Your task to perform on an android device: toggle pop-ups in chrome Image 0: 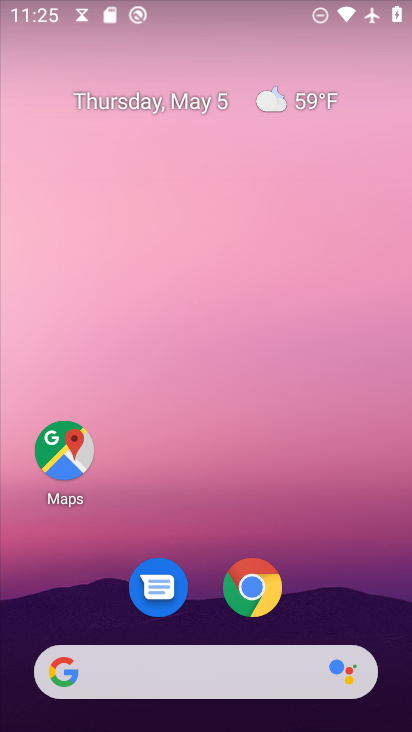
Step 0: drag from (340, 617) to (272, 14)
Your task to perform on an android device: toggle pop-ups in chrome Image 1: 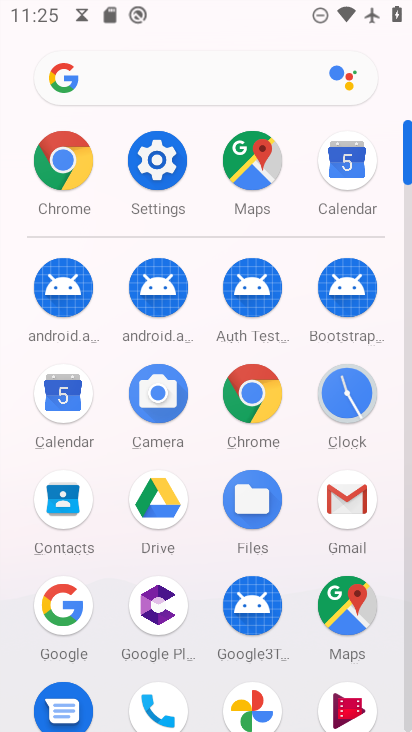
Step 1: drag from (13, 582) to (25, 222)
Your task to perform on an android device: toggle pop-ups in chrome Image 2: 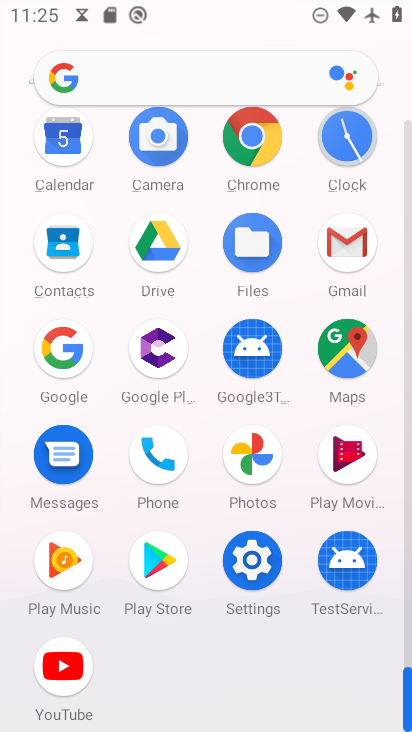
Step 2: click (246, 128)
Your task to perform on an android device: toggle pop-ups in chrome Image 3: 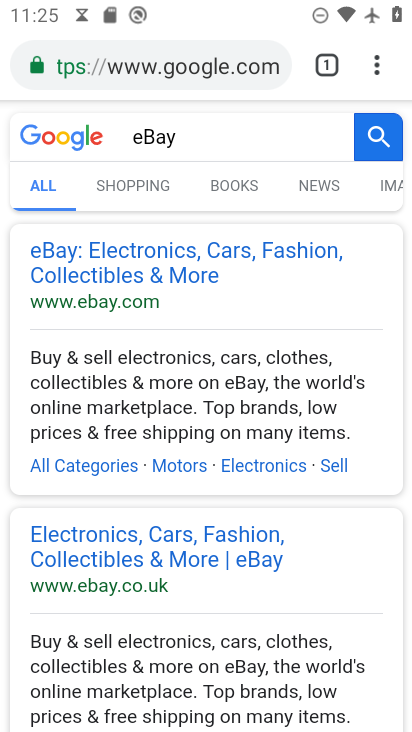
Step 3: drag from (377, 60) to (165, 633)
Your task to perform on an android device: toggle pop-ups in chrome Image 4: 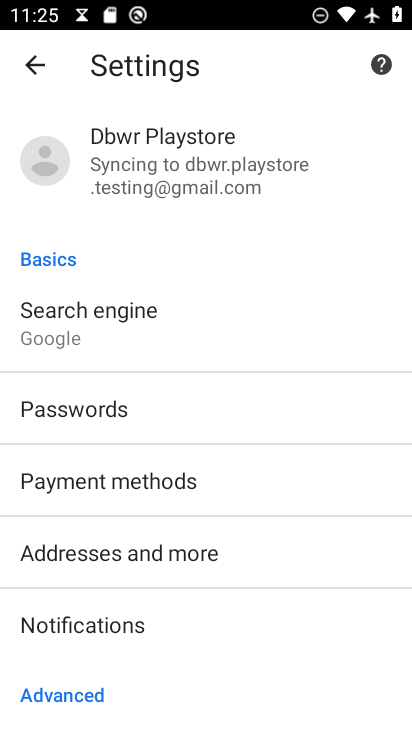
Step 4: drag from (272, 559) to (274, 182)
Your task to perform on an android device: toggle pop-ups in chrome Image 5: 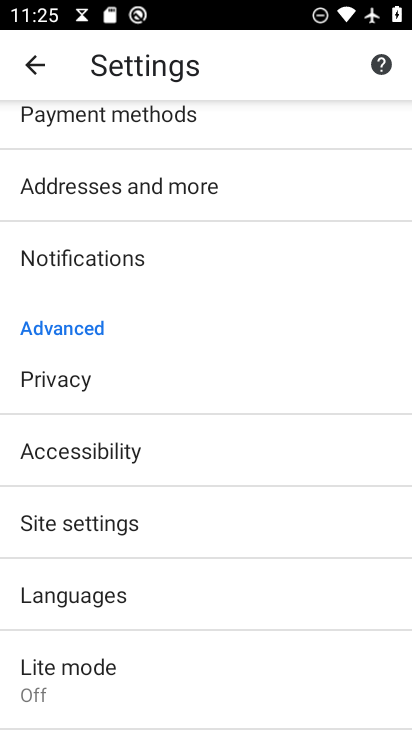
Step 5: drag from (254, 623) to (284, 252)
Your task to perform on an android device: toggle pop-ups in chrome Image 6: 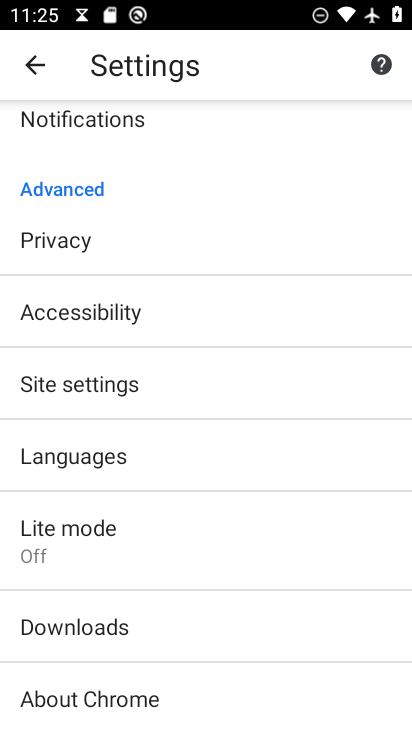
Step 6: click (122, 386)
Your task to perform on an android device: toggle pop-ups in chrome Image 7: 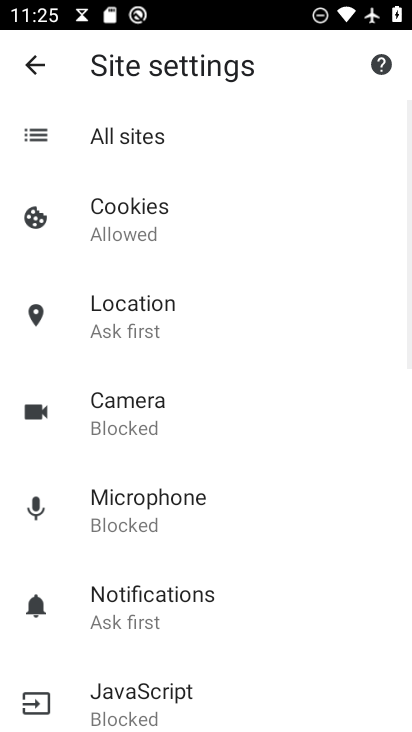
Step 7: drag from (233, 550) to (264, 159)
Your task to perform on an android device: toggle pop-ups in chrome Image 8: 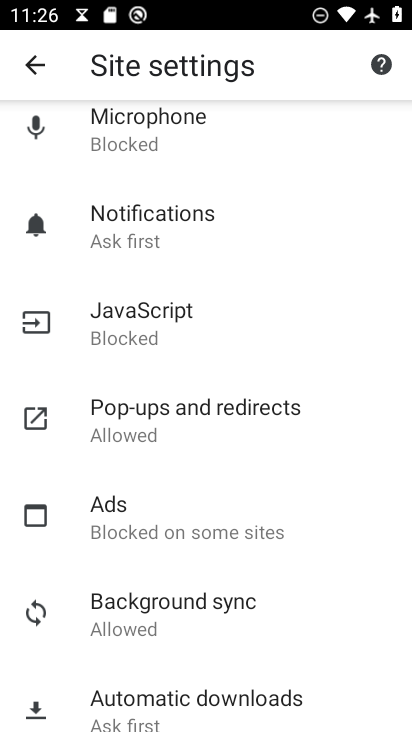
Step 8: click (229, 408)
Your task to perform on an android device: toggle pop-ups in chrome Image 9: 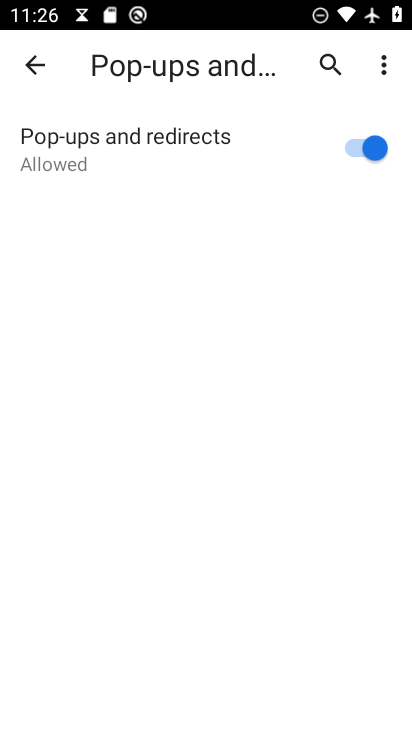
Step 9: click (353, 153)
Your task to perform on an android device: toggle pop-ups in chrome Image 10: 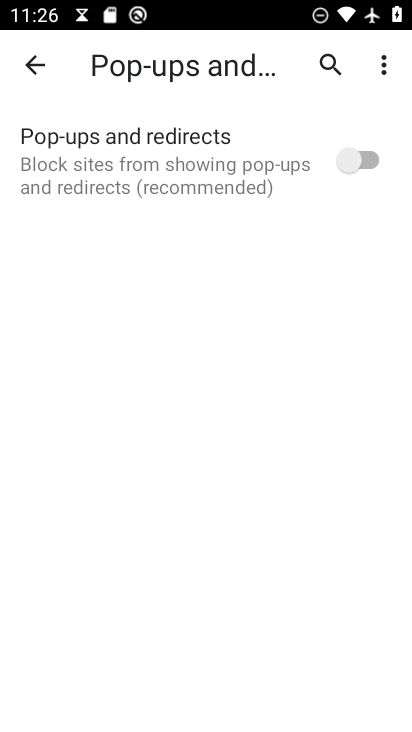
Step 10: task complete